Your task to perform on an android device: open the mobile data screen to see how much data has been used Image 0: 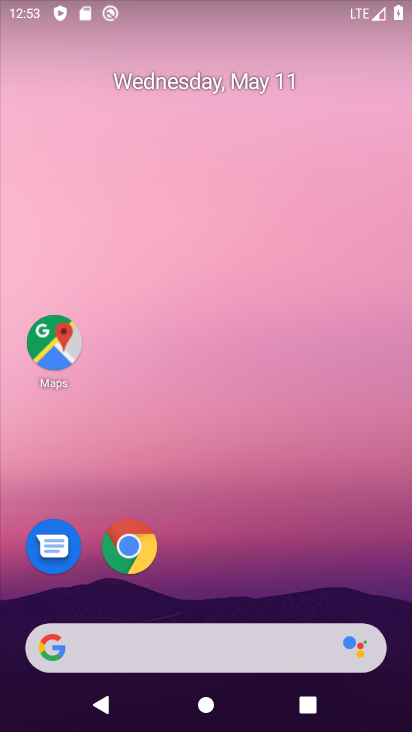
Step 0: drag from (309, 641) to (221, 240)
Your task to perform on an android device: open the mobile data screen to see how much data has been used Image 1: 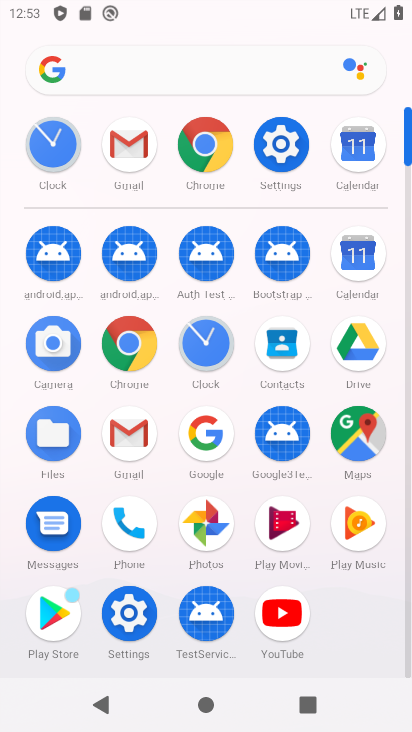
Step 1: click (127, 625)
Your task to perform on an android device: open the mobile data screen to see how much data has been used Image 2: 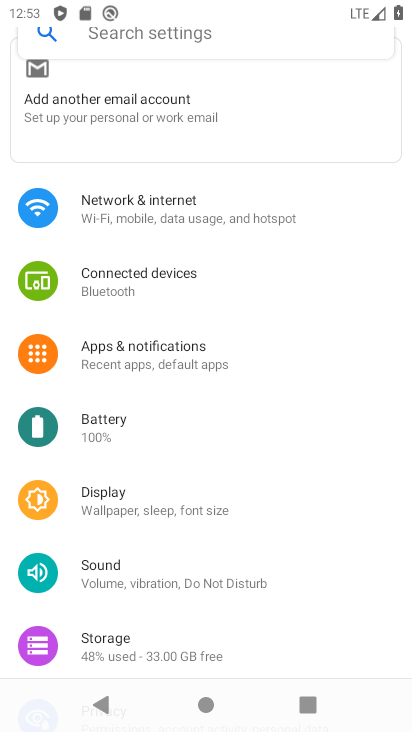
Step 2: click (101, 48)
Your task to perform on an android device: open the mobile data screen to see how much data has been used Image 3: 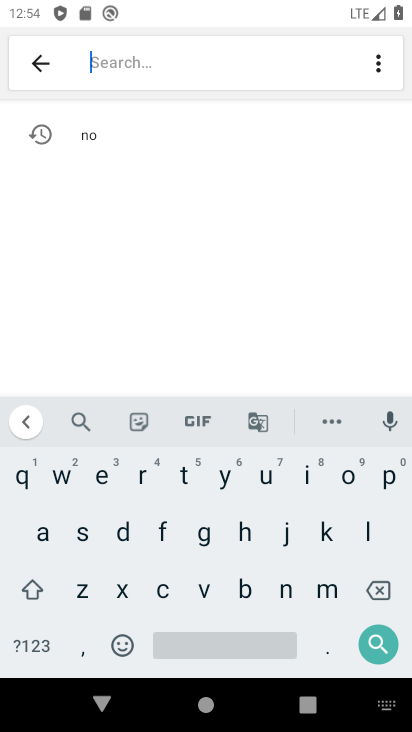
Step 3: click (111, 534)
Your task to perform on an android device: open the mobile data screen to see how much data has been used Image 4: 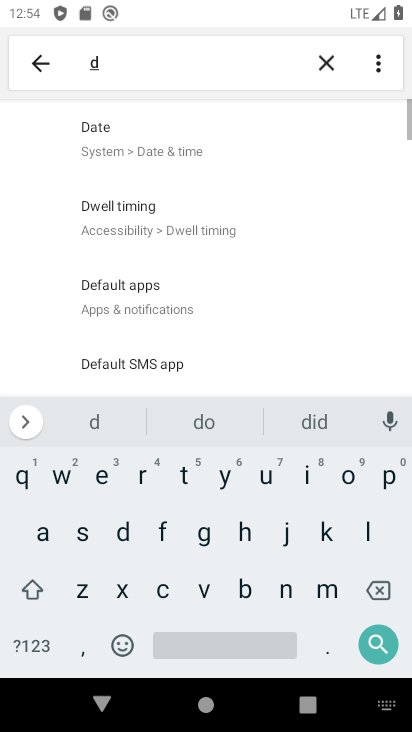
Step 4: click (46, 525)
Your task to perform on an android device: open the mobile data screen to see how much data has been used Image 5: 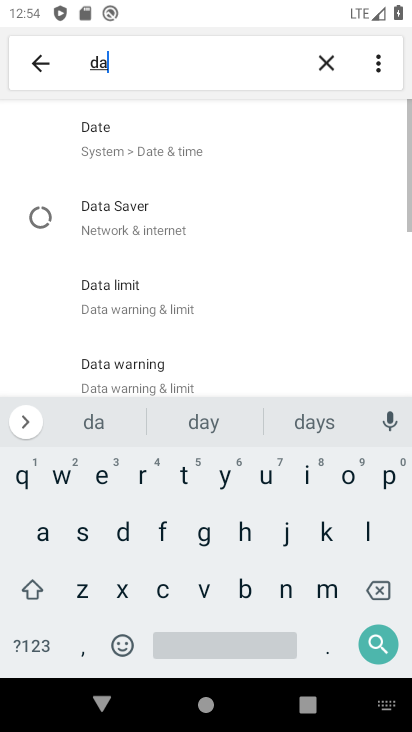
Step 5: click (179, 482)
Your task to perform on an android device: open the mobile data screen to see how much data has been used Image 6: 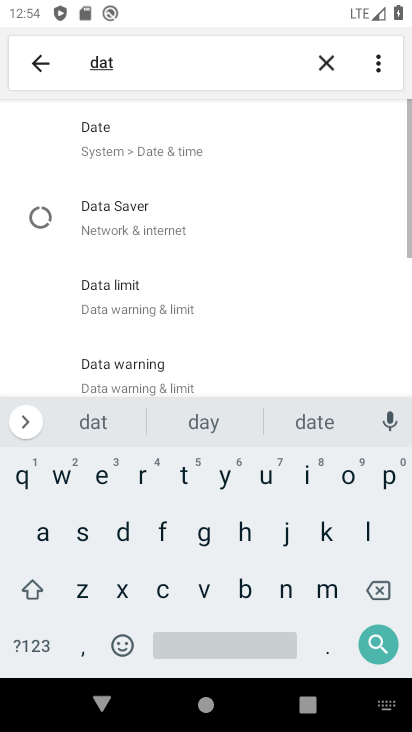
Step 6: click (42, 528)
Your task to perform on an android device: open the mobile data screen to see how much data has been used Image 7: 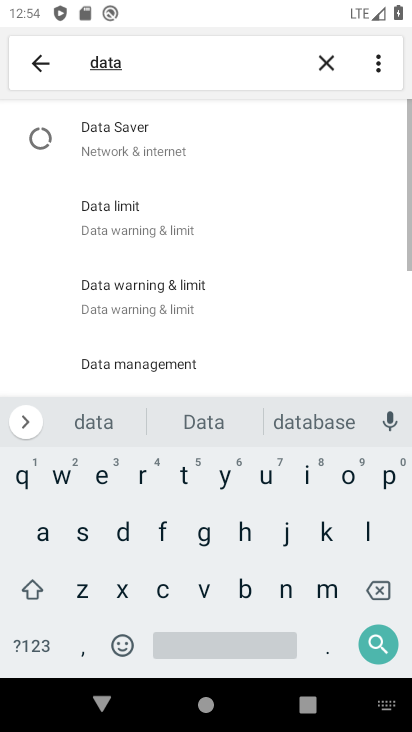
Step 7: click (189, 643)
Your task to perform on an android device: open the mobile data screen to see how much data has been used Image 8: 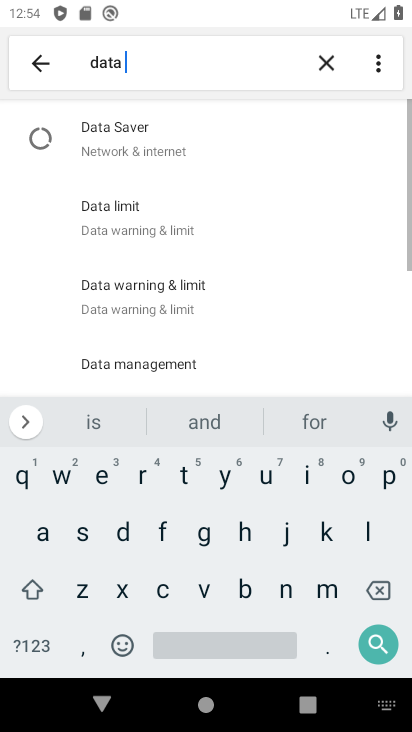
Step 8: click (272, 476)
Your task to perform on an android device: open the mobile data screen to see how much data has been used Image 9: 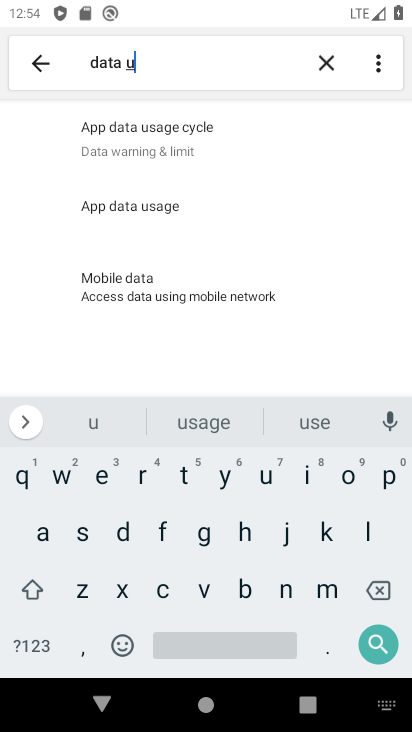
Step 9: click (141, 209)
Your task to perform on an android device: open the mobile data screen to see how much data has been used Image 10: 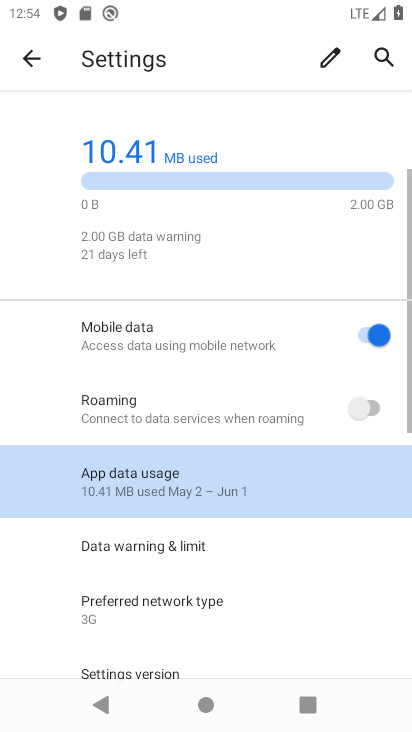
Step 10: click (195, 492)
Your task to perform on an android device: open the mobile data screen to see how much data has been used Image 11: 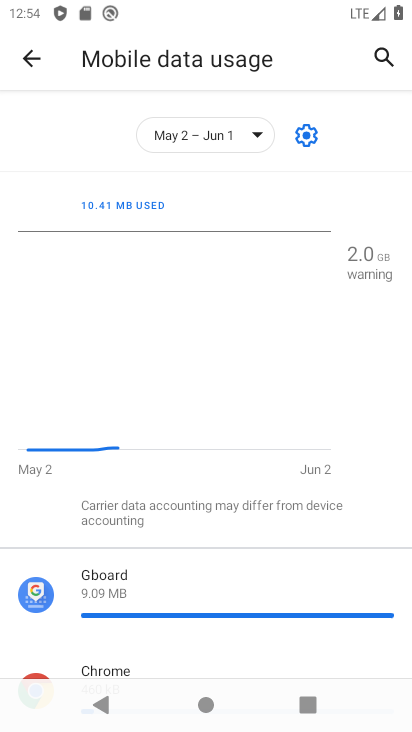
Step 11: task complete